Your task to perform on an android device: Go to battery settings Image 0: 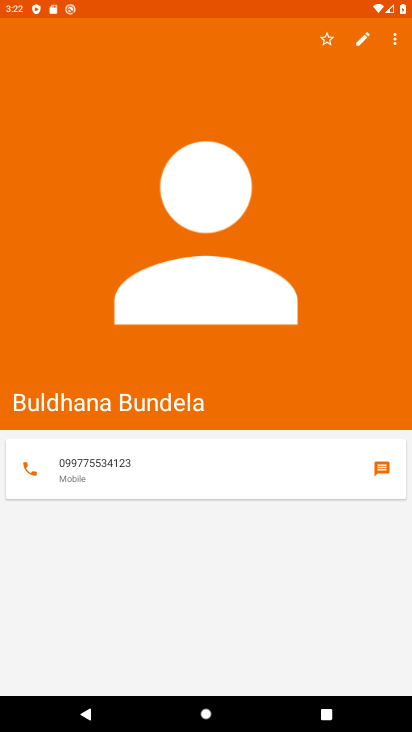
Step 0: press back button
Your task to perform on an android device: Go to battery settings Image 1: 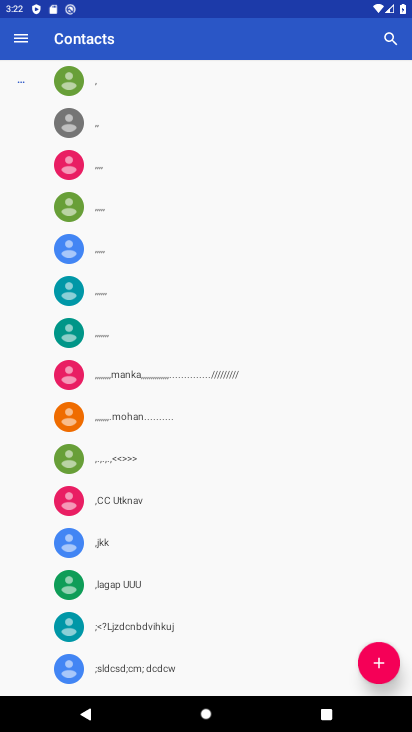
Step 1: press back button
Your task to perform on an android device: Go to battery settings Image 2: 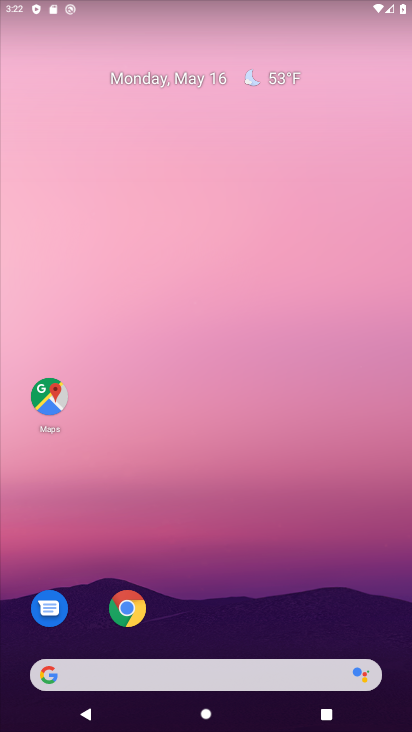
Step 2: drag from (246, 590) to (200, 63)
Your task to perform on an android device: Go to battery settings Image 3: 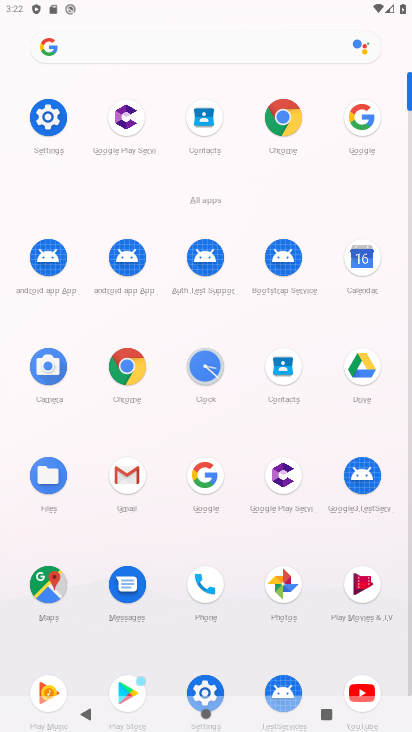
Step 3: click (45, 113)
Your task to perform on an android device: Go to battery settings Image 4: 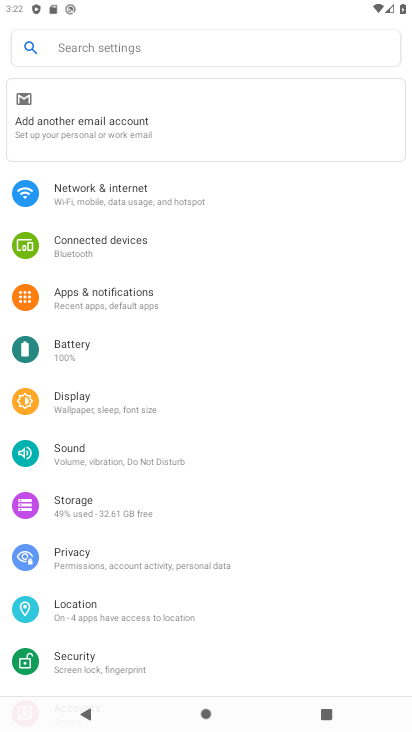
Step 4: click (74, 341)
Your task to perform on an android device: Go to battery settings Image 5: 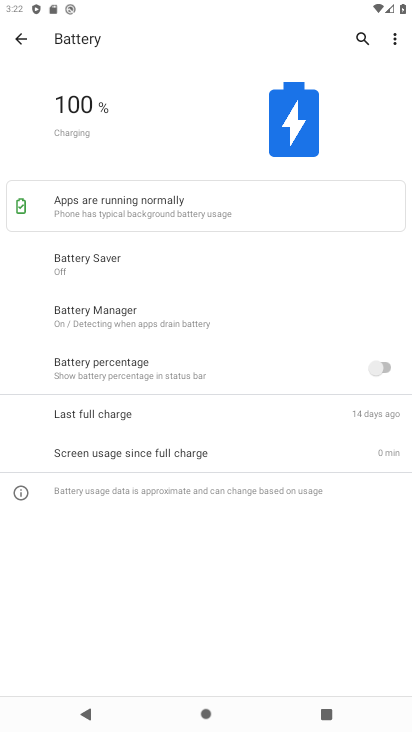
Step 5: task complete